Your task to perform on an android device: What's on my calendar today? Image 0: 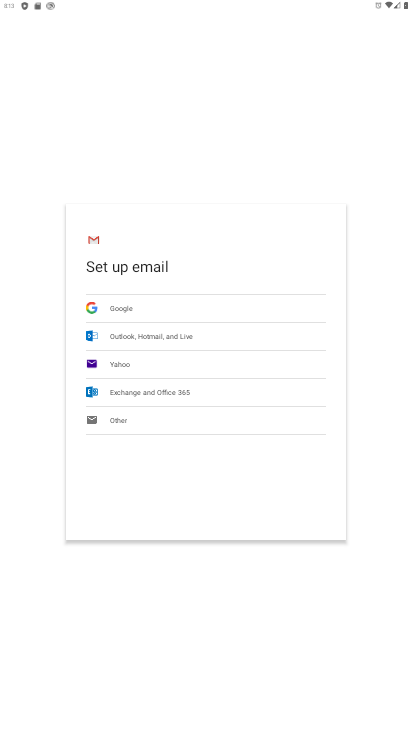
Step 0: press back button
Your task to perform on an android device: What's on my calendar today? Image 1: 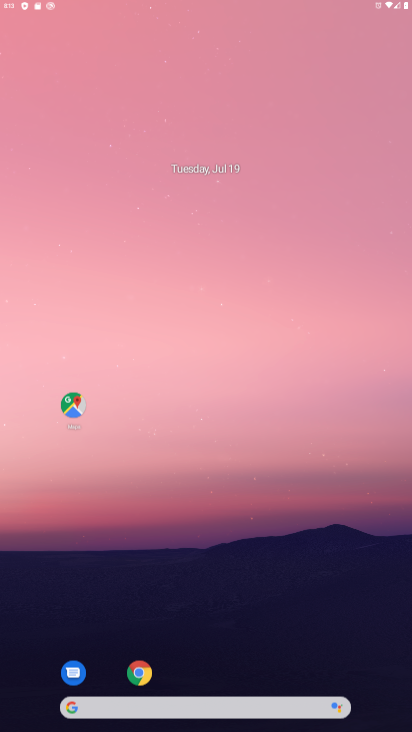
Step 1: press home button
Your task to perform on an android device: What's on my calendar today? Image 2: 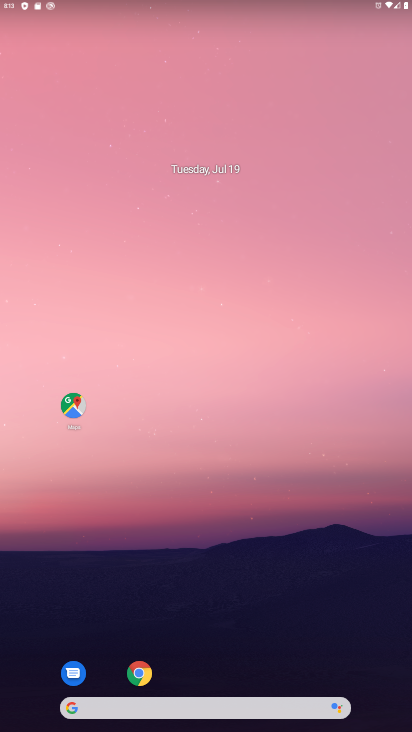
Step 2: drag from (220, 606) to (171, 225)
Your task to perform on an android device: What's on my calendar today? Image 3: 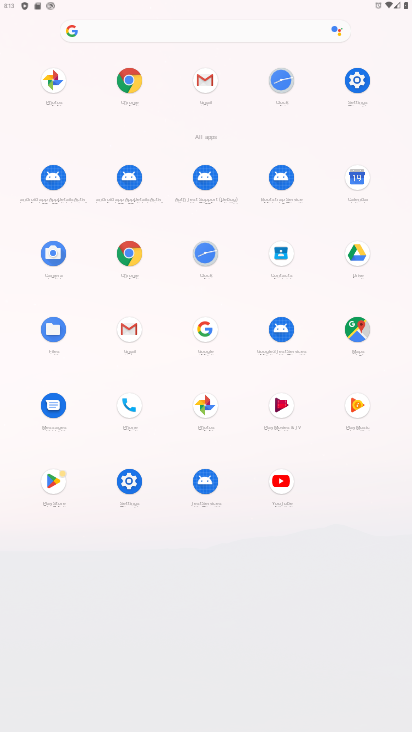
Step 3: click (356, 176)
Your task to perform on an android device: What's on my calendar today? Image 4: 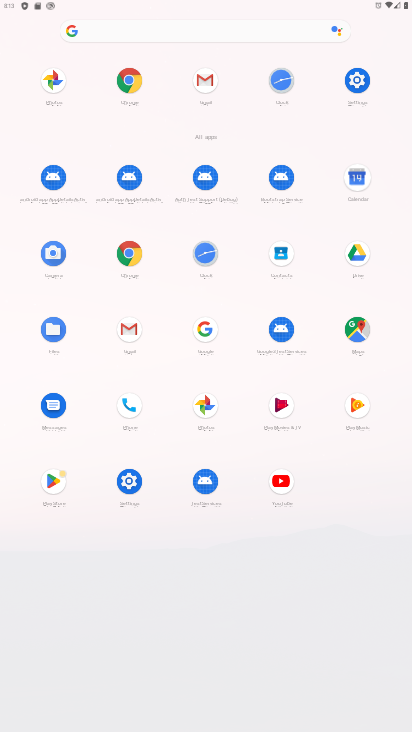
Step 4: click (356, 175)
Your task to perform on an android device: What's on my calendar today? Image 5: 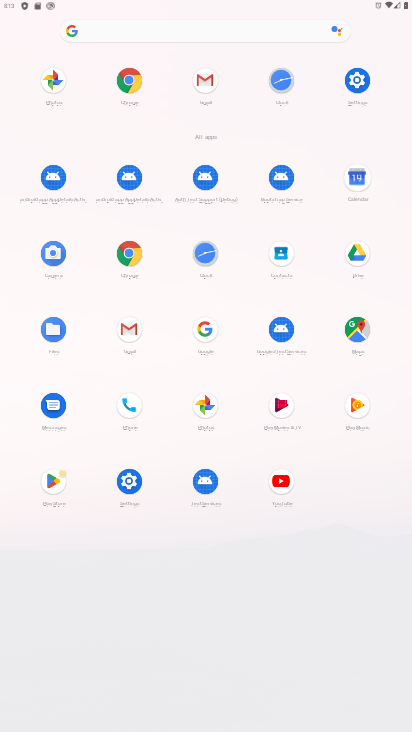
Step 5: click (356, 175)
Your task to perform on an android device: What's on my calendar today? Image 6: 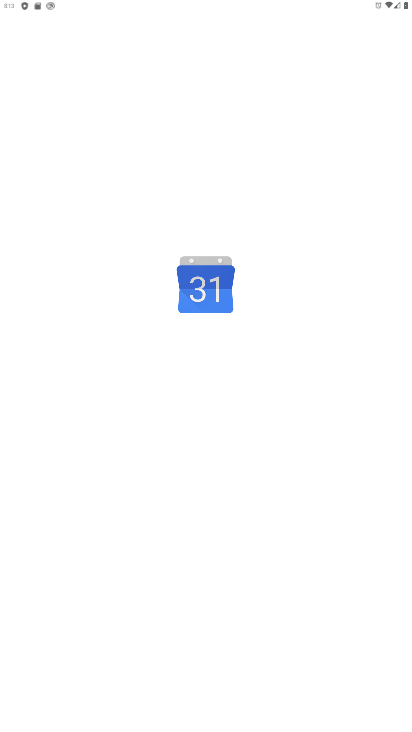
Step 6: click (356, 175)
Your task to perform on an android device: What's on my calendar today? Image 7: 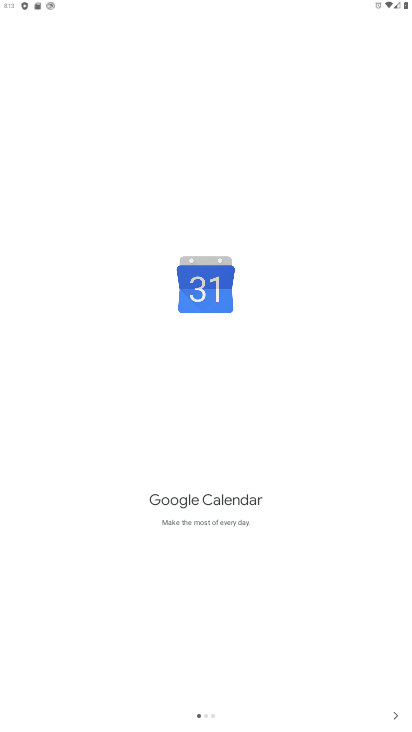
Step 7: click (396, 710)
Your task to perform on an android device: What's on my calendar today? Image 8: 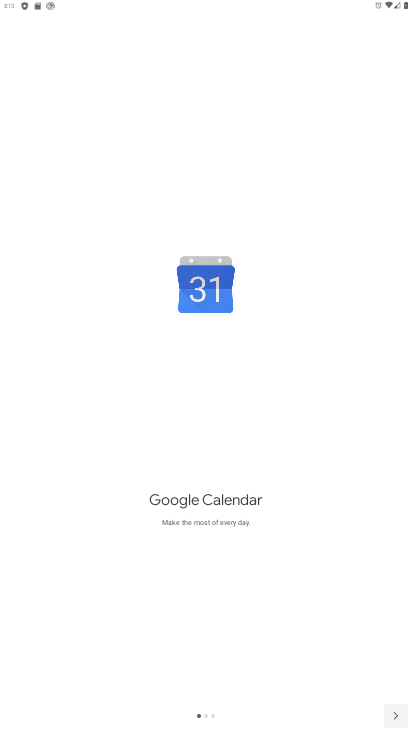
Step 8: click (400, 716)
Your task to perform on an android device: What's on my calendar today? Image 9: 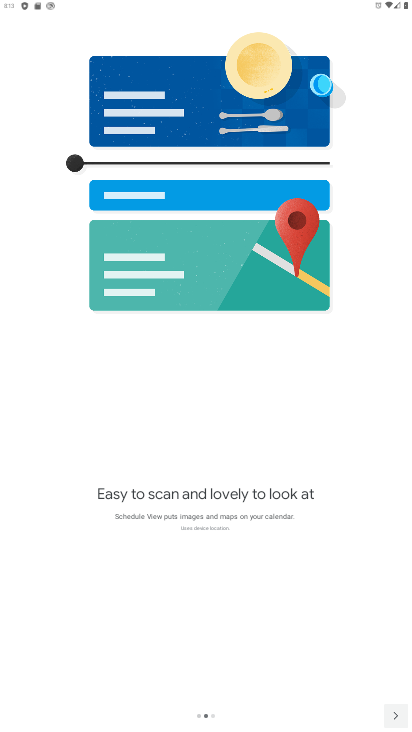
Step 9: click (400, 717)
Your task to perform on an android device: What's on my calendar today? Image 10: 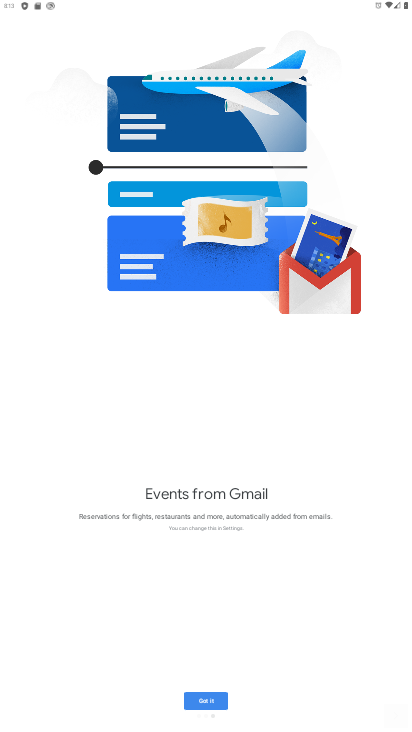
Step 10: click (402, 720)
Your task to perform on an android device: What's on my calendar today? Image 11: 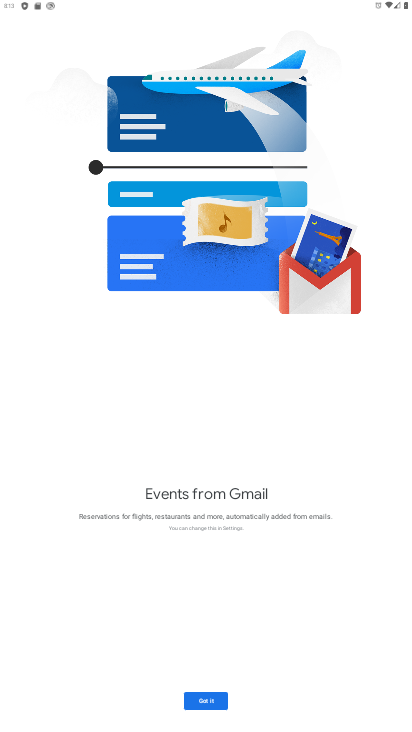
Step 11: click (399, 718)
Your task to perform on an android device: What's on my calendar today? Image 12: 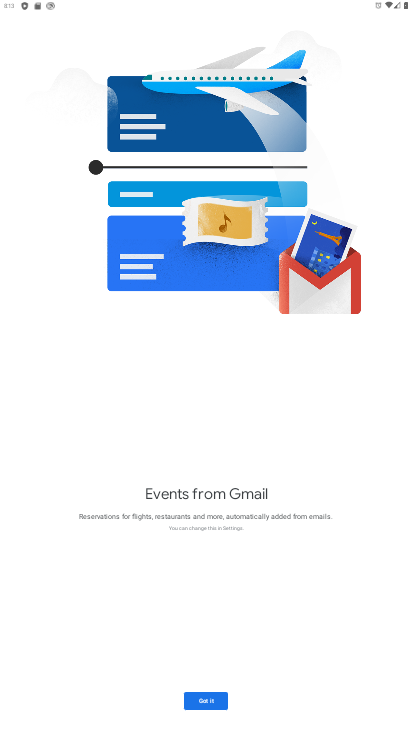
Step 12: click (200, 699)
Your task to perform on an android device: What's on my calendar today? Image 13: 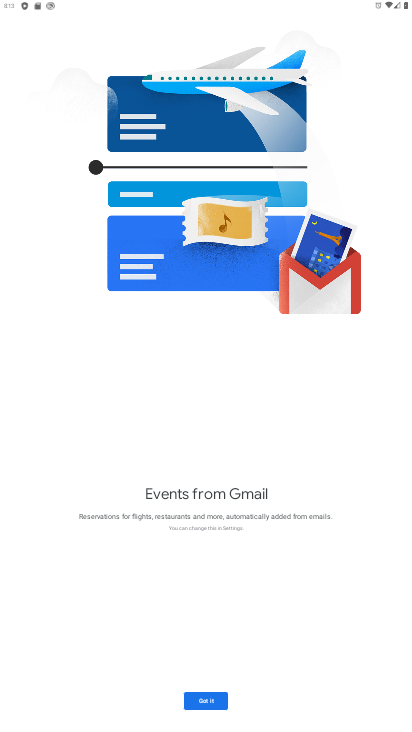
Step 13: click (212, 690)
Your task to perform on an android device: What's on my calendar today? Image 14: 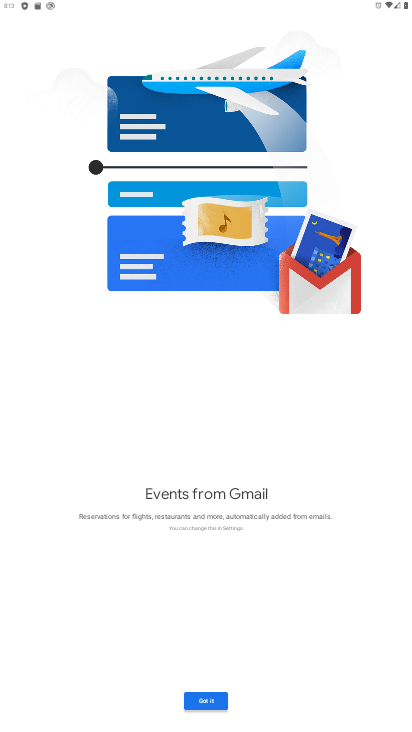
Step 14: click (212, 690)
Your task to perform on an android device: What's on my calendar today? Image 15: 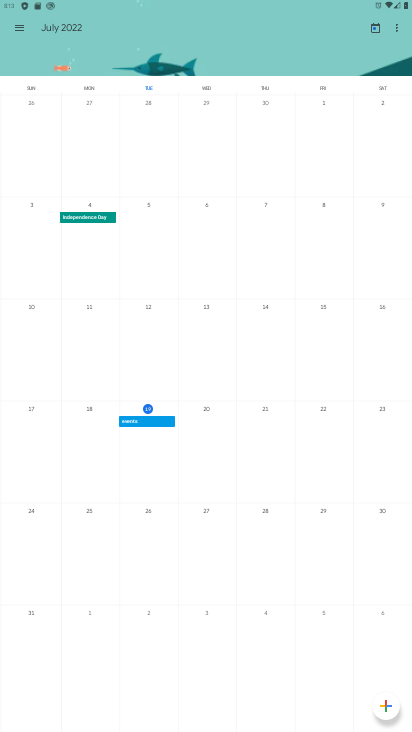
Step 15: task complete